Your task to perform on an android device: Go to accessibility settings Image 0: 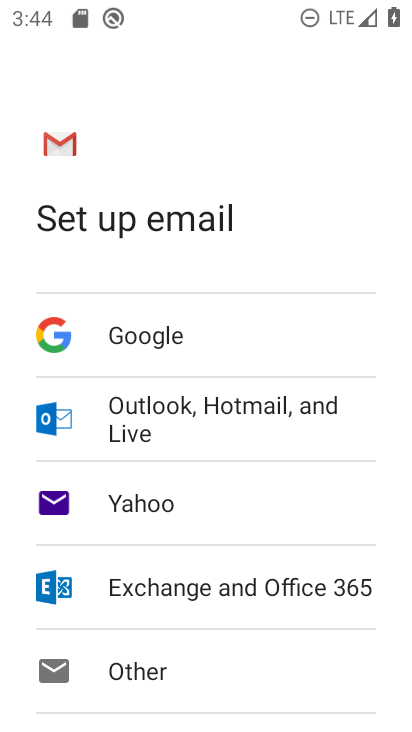
Step 0: press home button
Your task to perform on an android device: Go to accessibility settings Image 1: 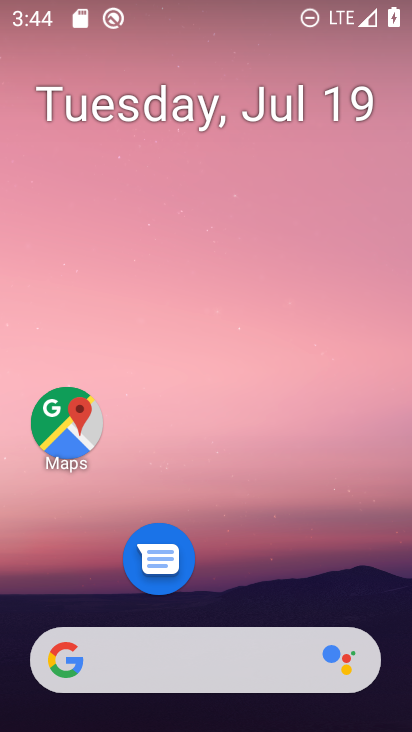
Step 1: drag from (210, 610) to (24, 332)
Your task to perform on an android device: Go to accessibility settings Image 2: 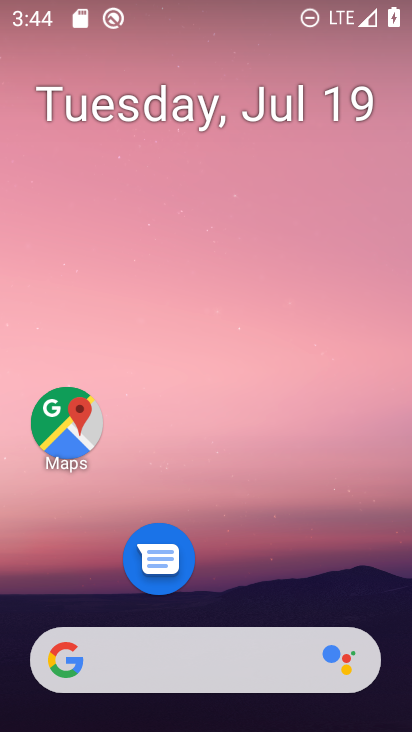
Step 2: drag from (188, 619) to (314, 46)
Your task to perform on an android device: Go to accessibility settings Image 3: 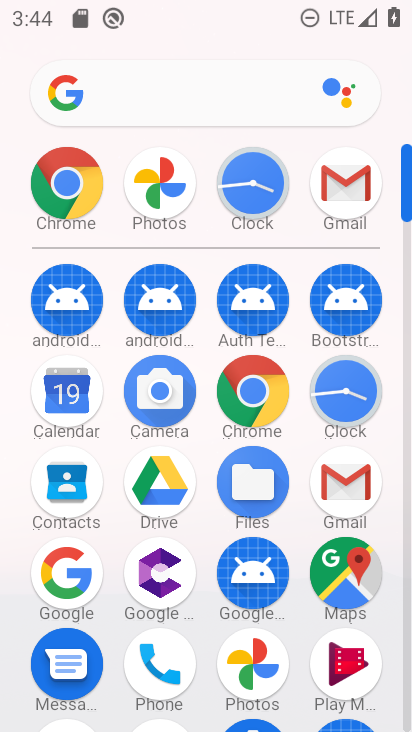
Step 3: drag from (209, 528) to (313, 187)
Your task to perform on an android device: Go to accessibility settings Image 4: 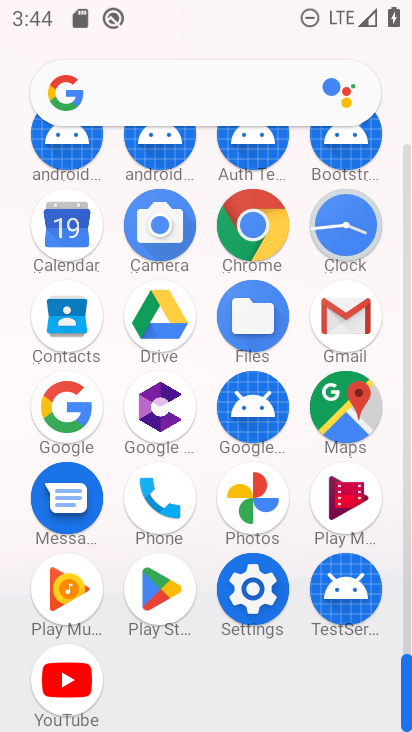
Step 4: click (252, 616)
Your task to perform on an android device: Go to accessibility settings Image 5: 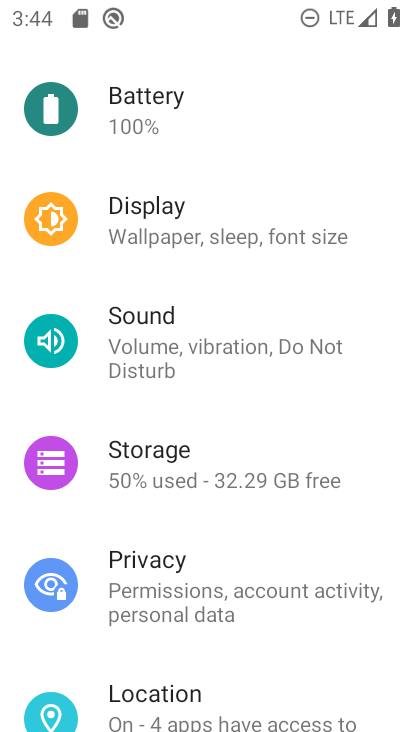
Step 5: drag from (223, 473) to (306, 95)
Your task to perform on an android device: Go to accessibility settings Image 6: 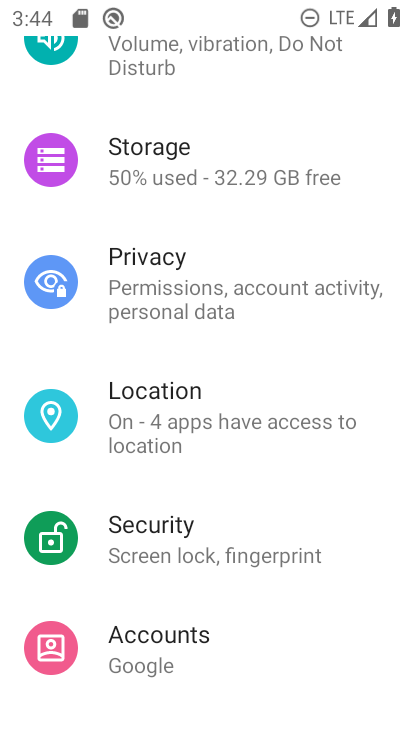
Step 6: drag from (202, 550) to (275, 169)
Your task to perform on an android device: Go to accessibility settings Image 7: 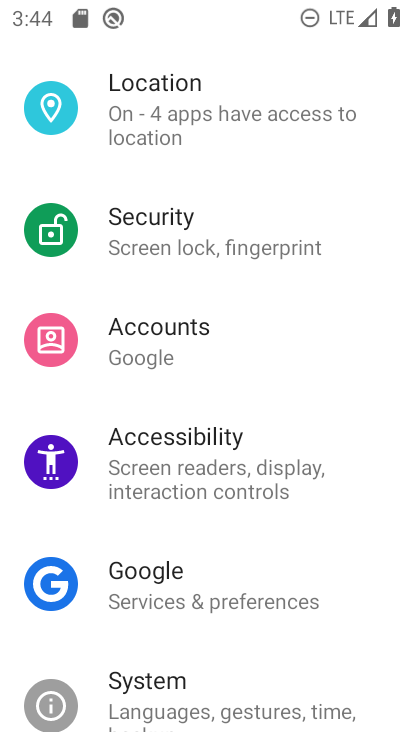
Step 7: click (214, 451)
Your task to perform on an android device: Go to accessibility settings Image 8: 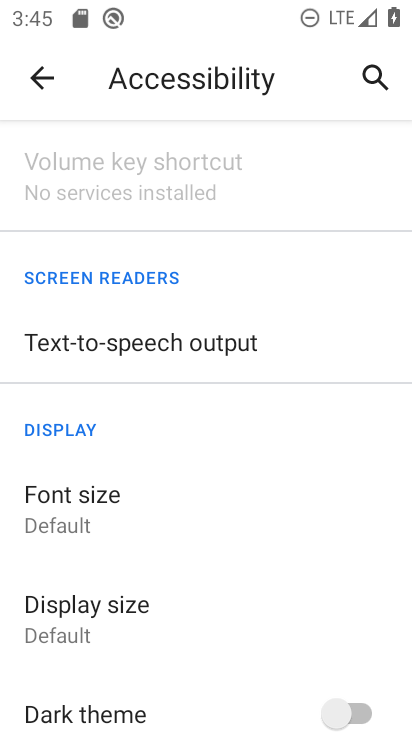
Step 8: task complete